Your task to perform on an android device: turn off location history Image 0: 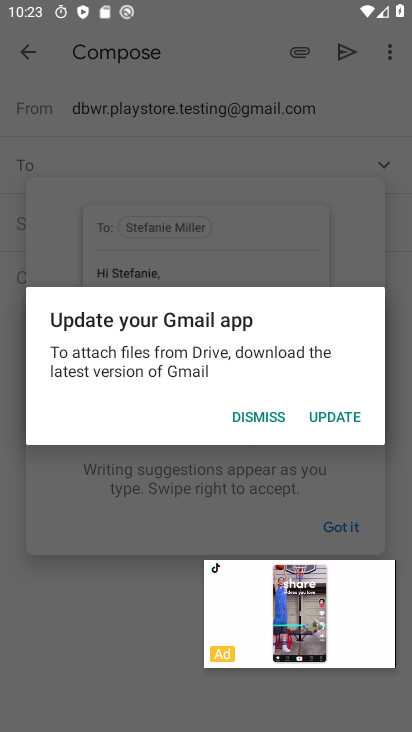
Step 0: click (347, 572)
Your task to perform on an android device: turn off location history Image 1: 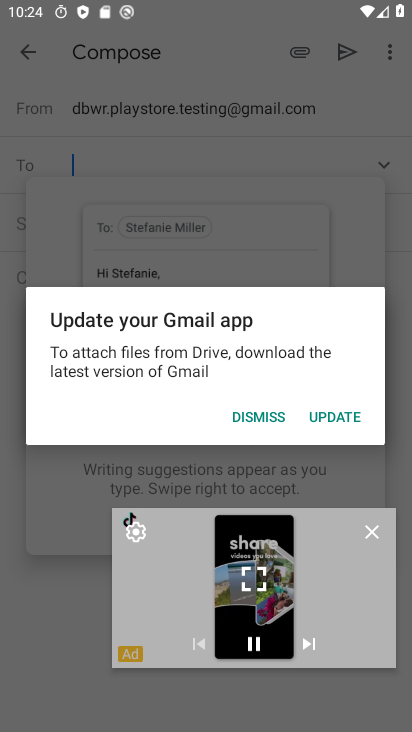
Step 1: click (374, 530)
Your task to perform on an android device: turn off location history Image 2: 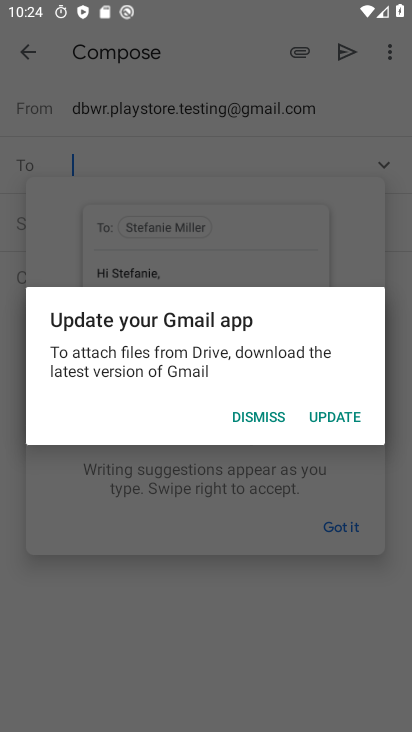
Step 2: press back button
Your task to perform on an android device: turn off location history Image 3: 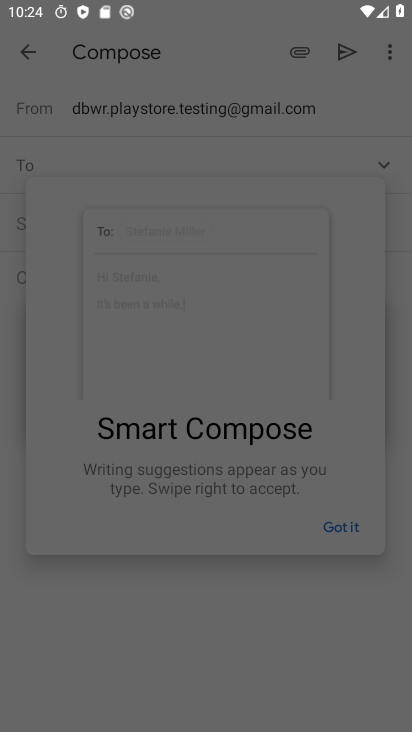
Step 3: press back button
Your task to perform on an android device: turn off location history Image 4: 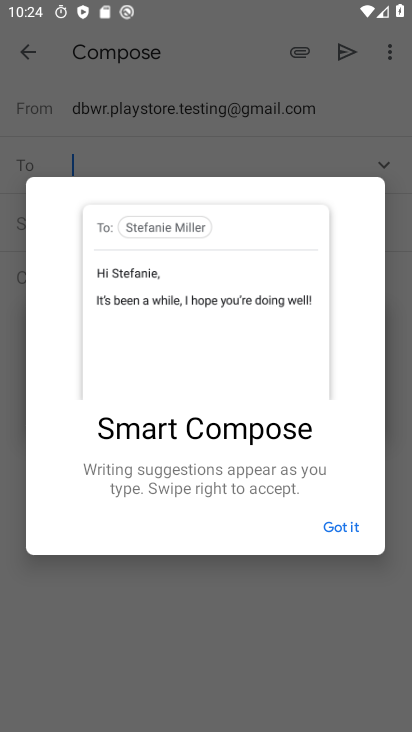
Step 4: press home button
Your task to perform on an android device: turn off location history Image 5: 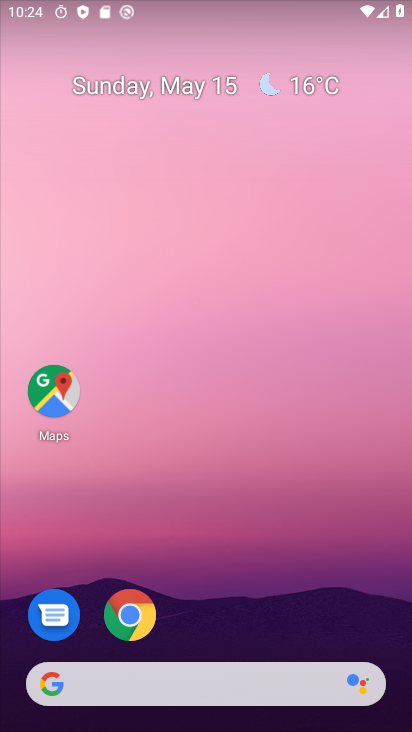
Step 5: drag from (275, 657) to (375, 2)
Your task to perform on an android device: turn off location history Image 6: 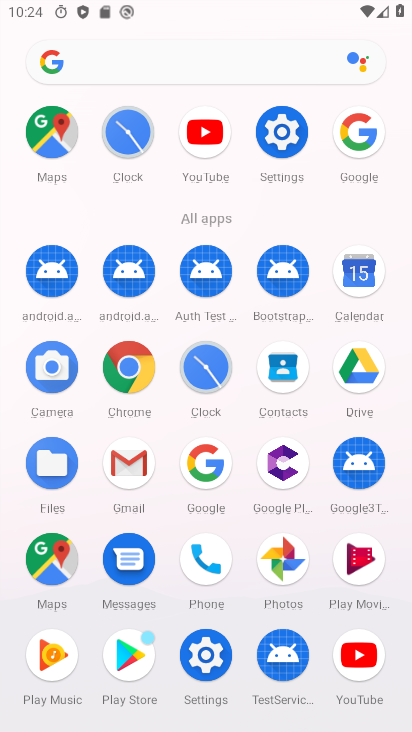
Step 6: click (285, 133)
Your task to perform on an android device: turn off location history Image 7: 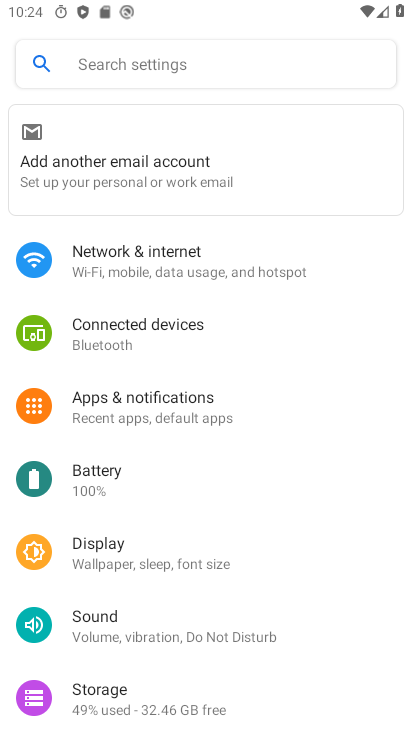
Step 7: drag from (219, 634) to (338, 251)
Your task to perform on an android device: turn off location history Image 8: 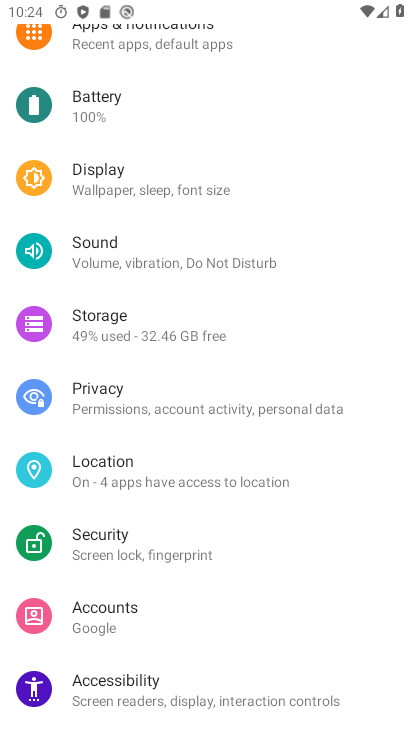
Step 8: click (255, 471)
Your task to perform on an android device: turn off location history Image 9: 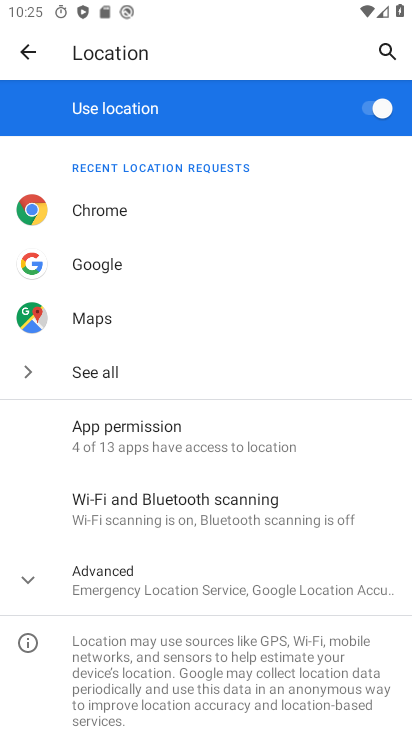
Step 9: click (141, 574)
Your task to perform on an android device: turn off location history Image 10: 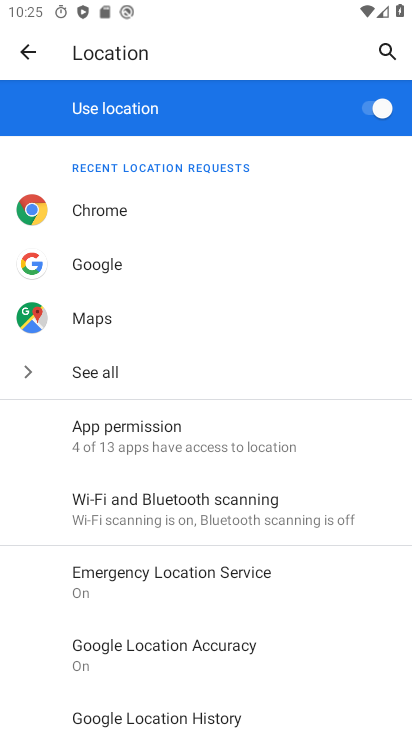
Step 10: click (178, 720)
Your task to perform on an android device: turn off location history Image 11: 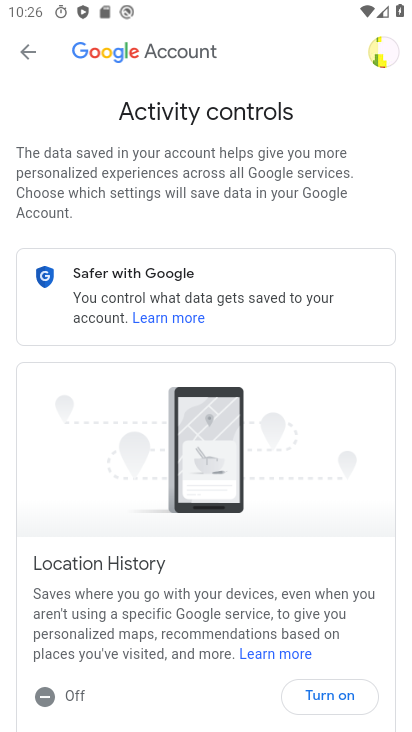
Step 11: task complete